Your task to perform on an android device: Open the calendar app, open the side menu, and click the "Day" option Image 0: 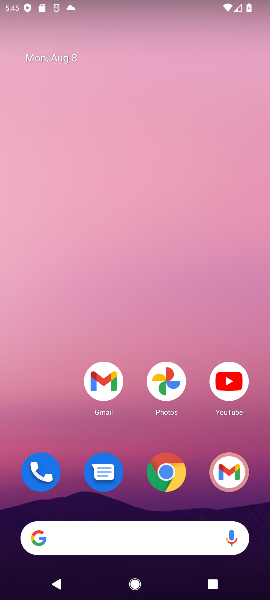
Step 0: press home button
Your task to perform on an android device: Open the calendar app, open the side menu, and click the "Day" option Image 1: 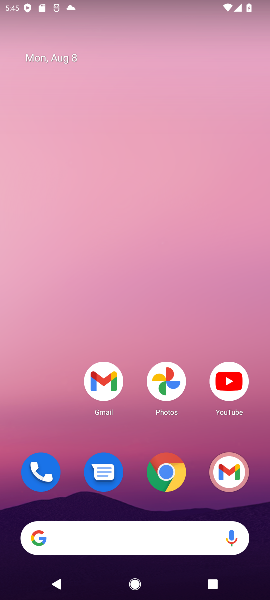
Step 1: drag from (134, 499) to (150, 96)
Your task to perform on an android device: Open the calendar app, open the side menu, and click the "Day" option Image 2: 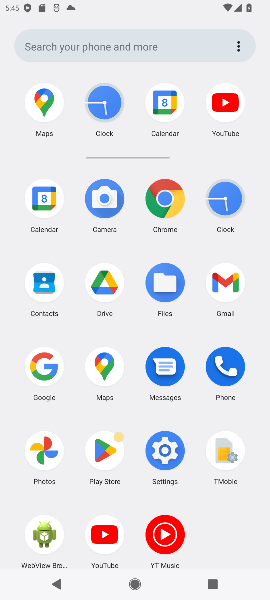
Step 2: click (160, 109)
Your task to perform on an android device: Open the calendar app, open the side menu, and click the "Day" option Image 3: 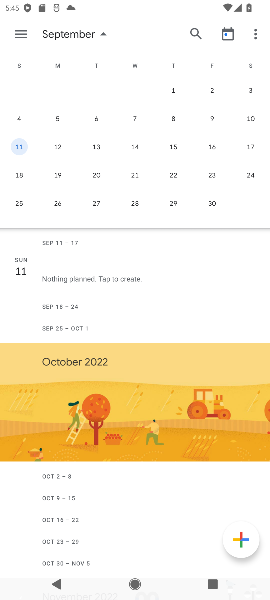
Step 3: click (19, 32)
Your task to perform on an android device: Open the calendar app, open the side menu, and click the "Day" option Image 4: 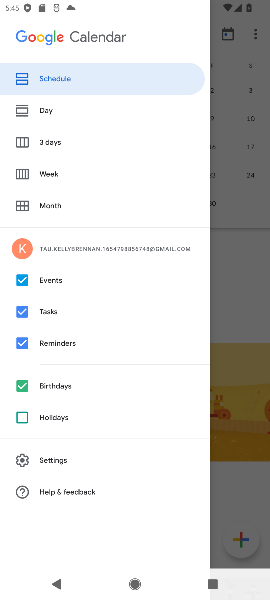
Step 4: click (47, 109)
Your task to perform on an android device: Open the calendar app, open the side menu, and click the "Day" option Image 5: 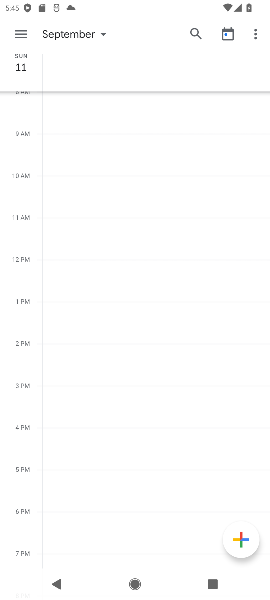
Step 5: task complete